Your task to perform on an android device: uninstall "Messages" Image 0: 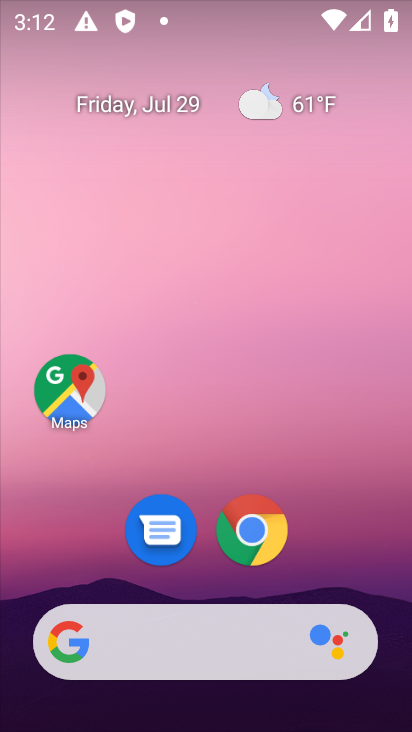
Step 0: click (151, 536)
Your task to perform on an android device: uninstall "Messages" Image 1: 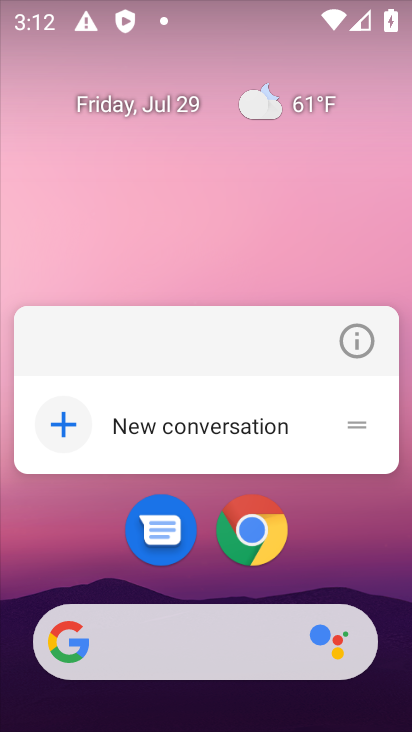
Step 1: click (348, 349)
Your task to perform on an android device: uninstall "Messages" Image 2: 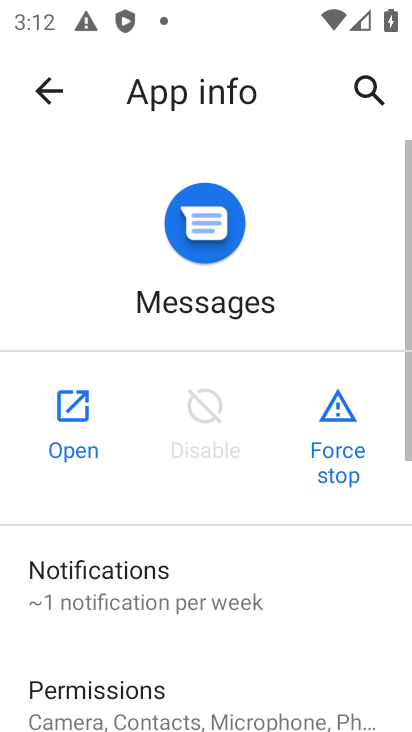
Step 2: task complete